Your task to perform on an android device: uninstall "DuckDuckGo Privacy Browser" Image 0: 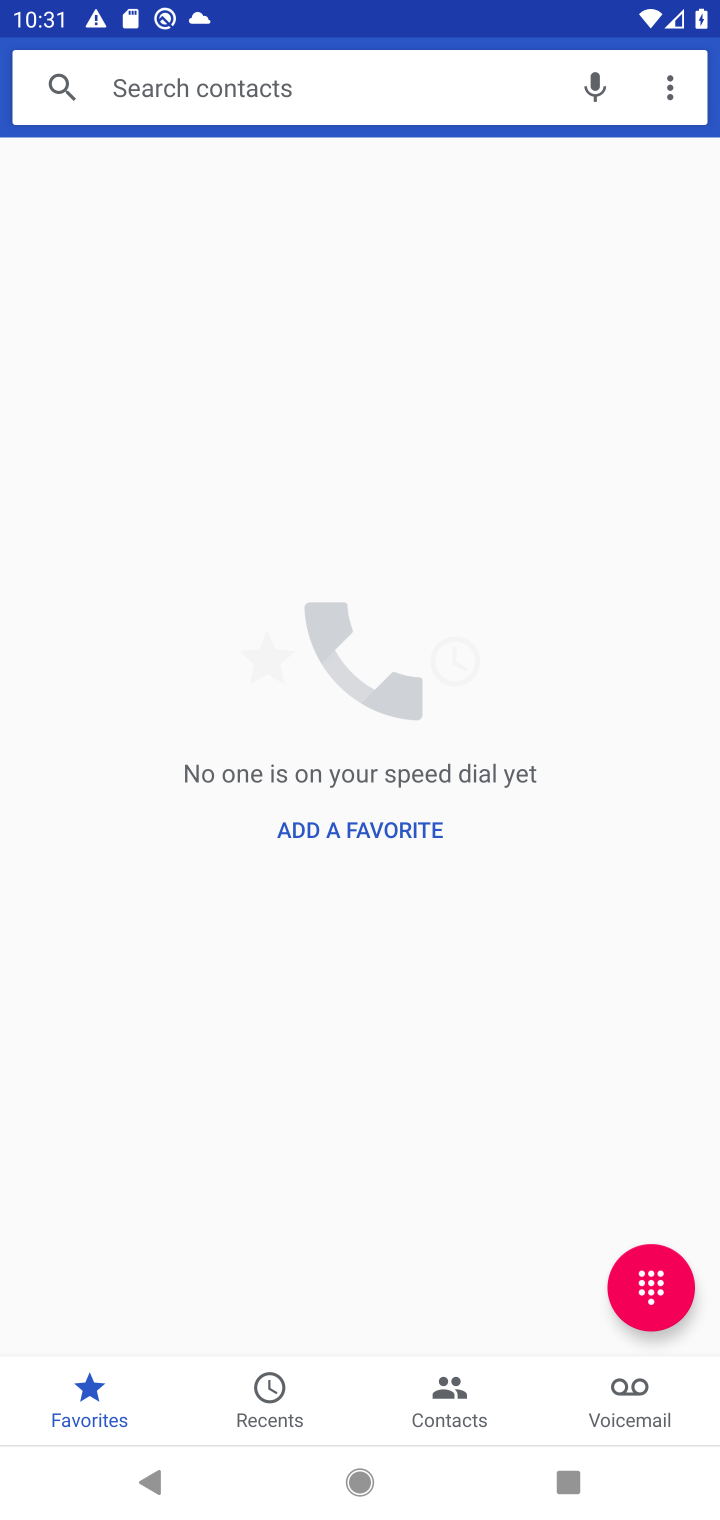
Step 0: press home button
Your task to perform on an android device: uninstall "DuckDuckGo Privacy Browser" Image 1: 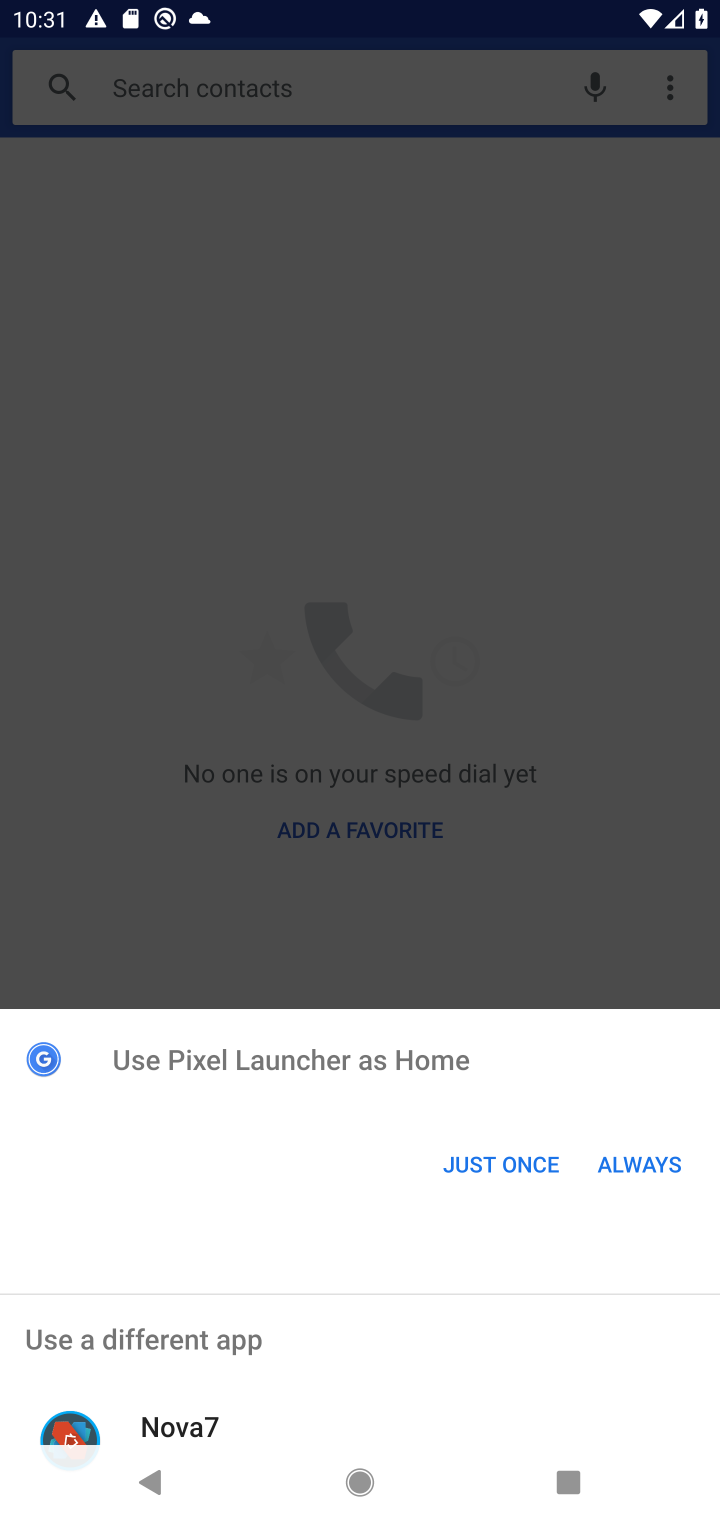
Step 1: click (505, 1151)
Your task to perform on an android device: uninstall "DuckDuckGo Privacy Browser" Image 2: 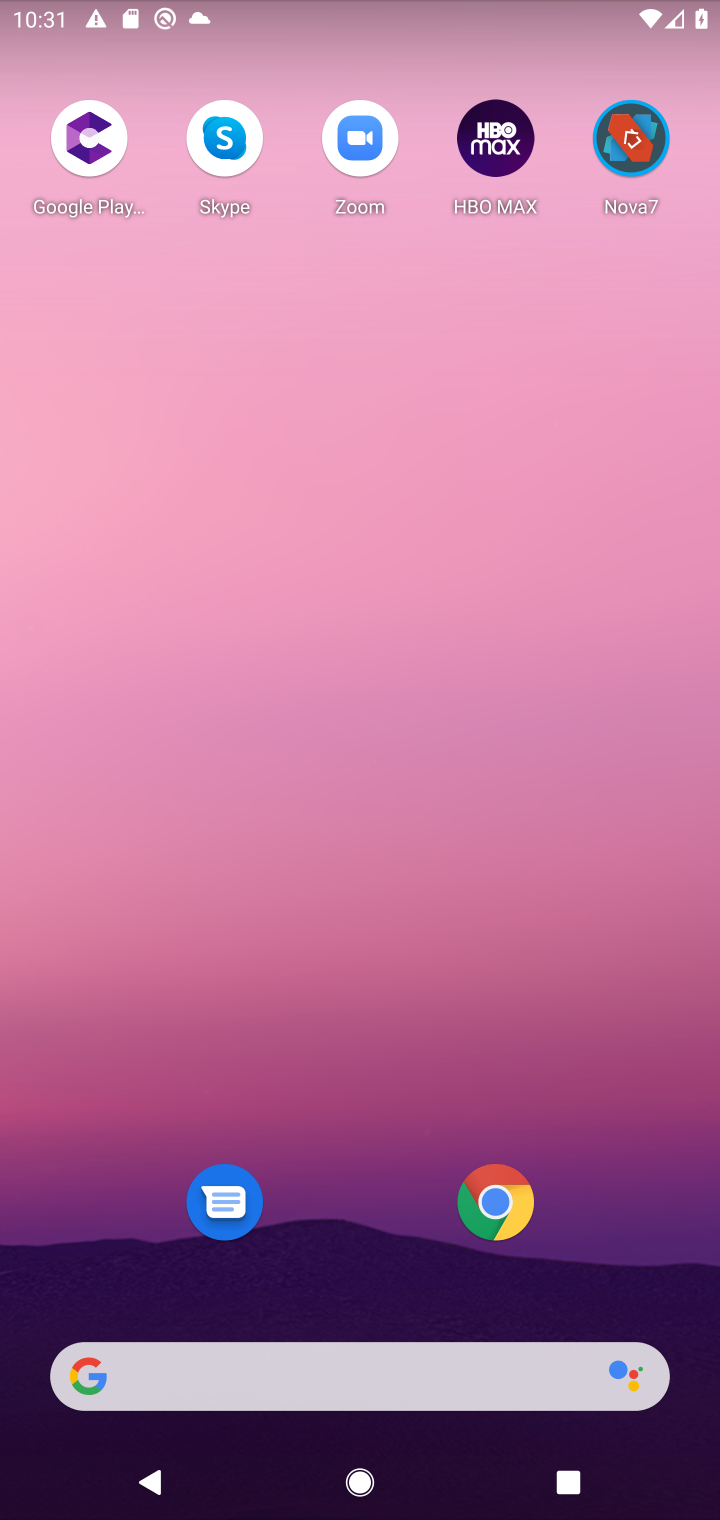
Step 2: click (342, 1358)
Your task to perform on an android device: uninstall "DuckDuckGo Privacy Browser" Image 3: 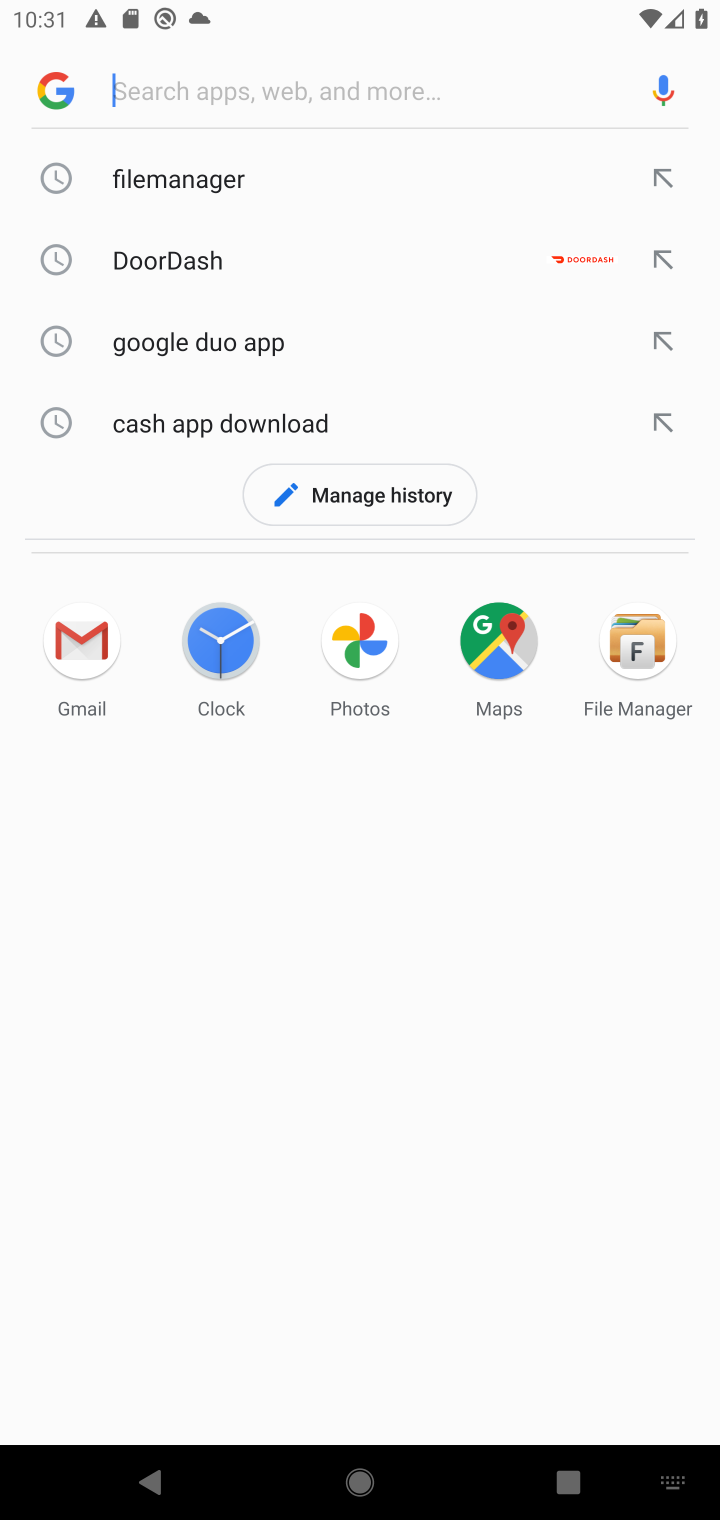
Step 3: type "duck duck go"
Your task to perform on an android device: uninstall "DuckDuckGo Privacy Browser" Image 4: 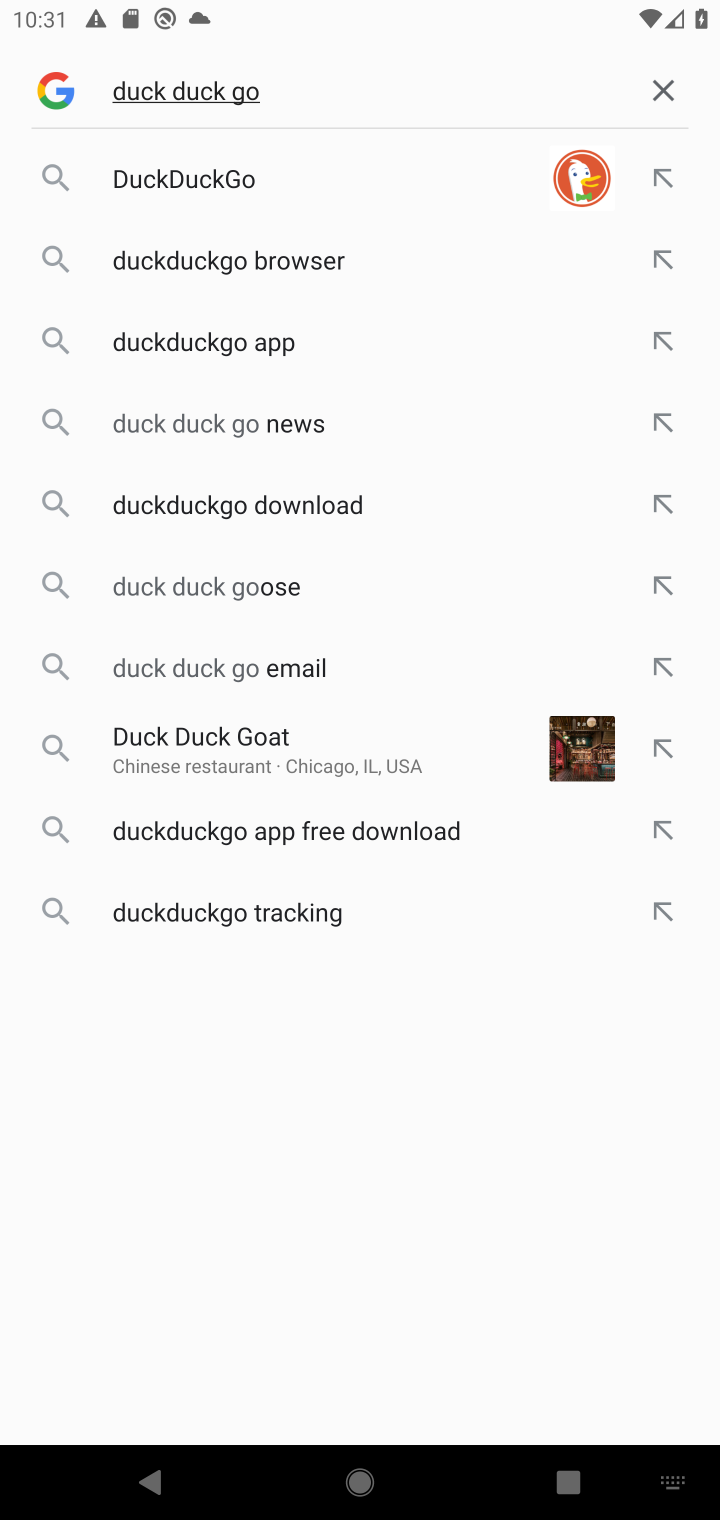
Step 4: click (291, 192)
Your task to perform on an android device: uninstall "DuckDuckGo Privacy Browser" Image 5: 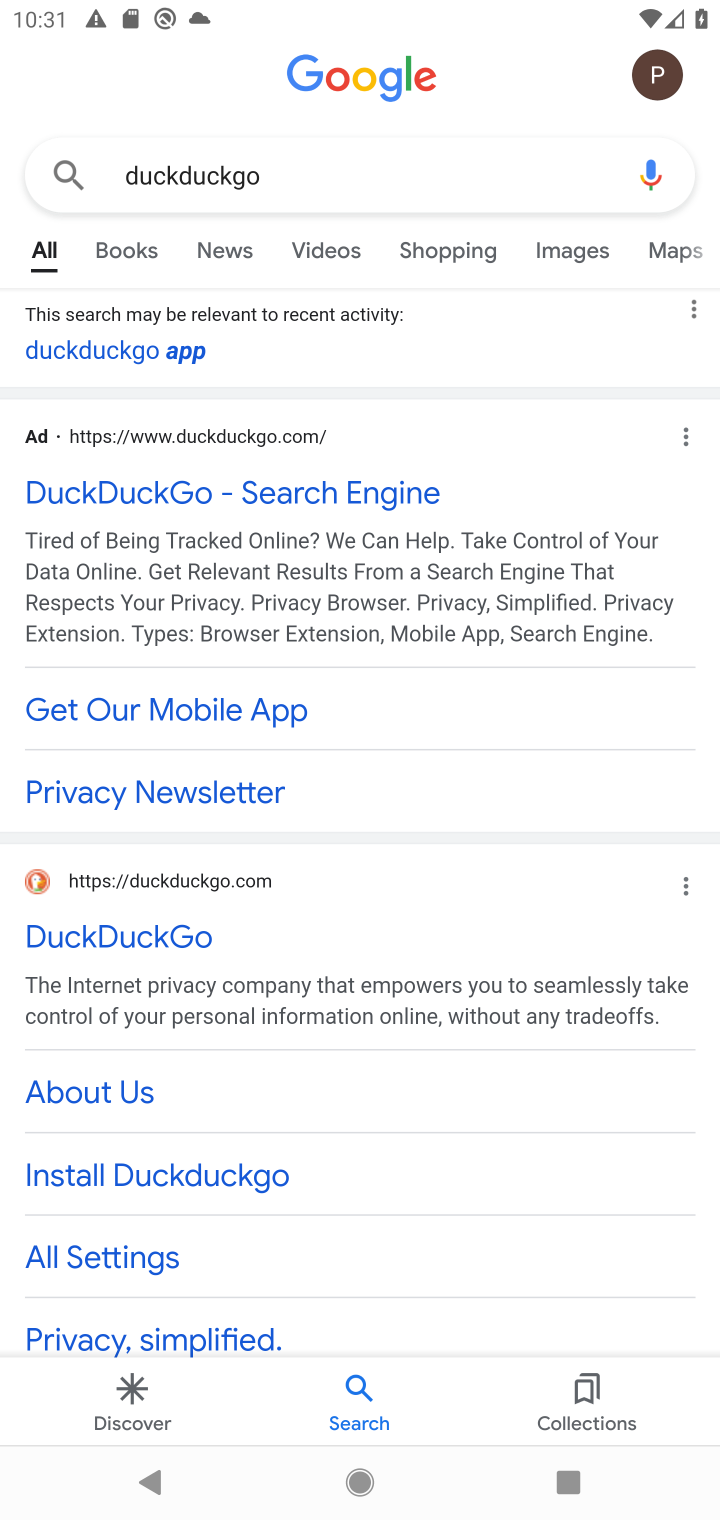
Step 5: drag from (303, 1053) to (335, 290)
Your task to perform on an android device: uninstall "DuckDuckGo Privacy Browser" Image 6: 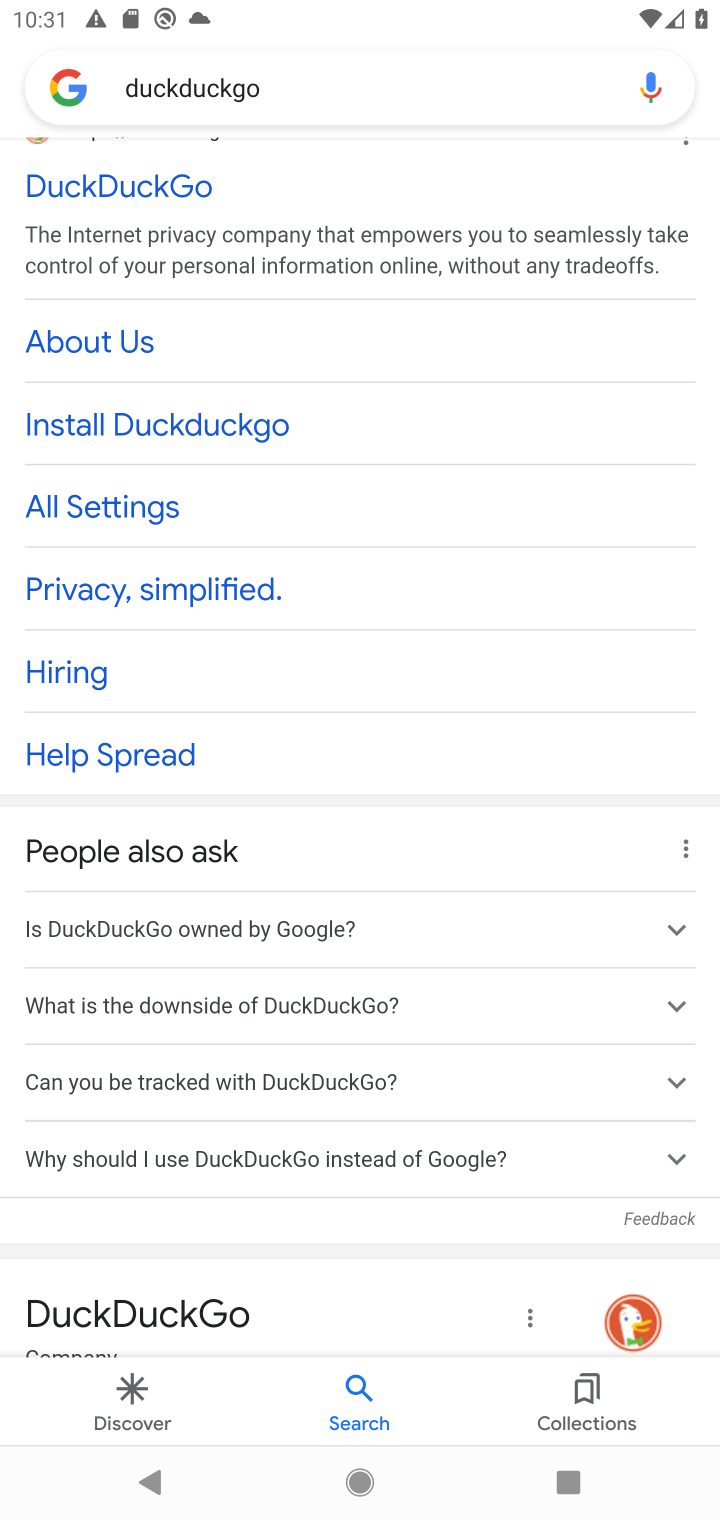
Step 6: drag from (335, 1288) to (368, 573)
Your task to perform on an android device: uninstall "DuckDuckGo Privacy Browser" Image 7: 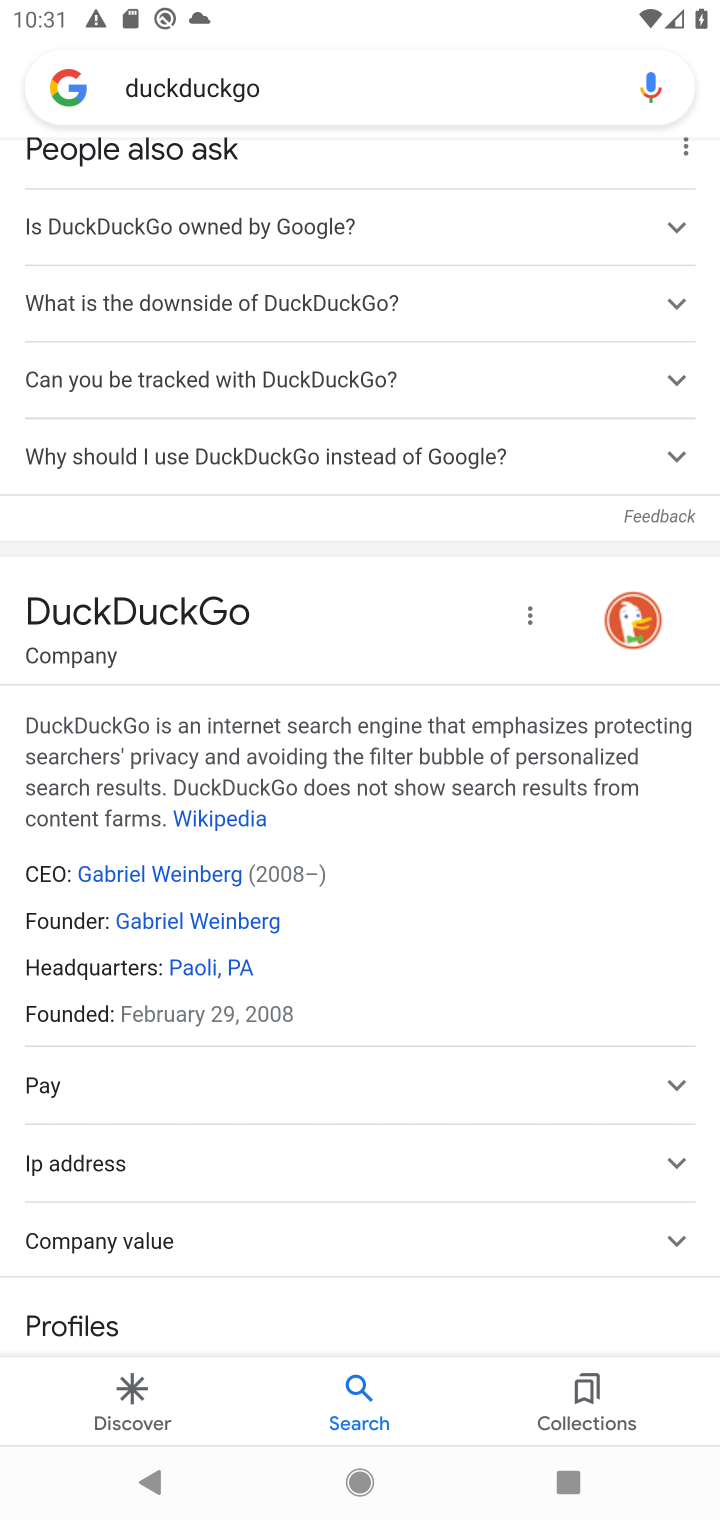
Step 7: drag from (474, 1079) to (447, 515)
Your task to perform on an android device: uninstall "DuckDuckGo Privacy Browser" Image 8: 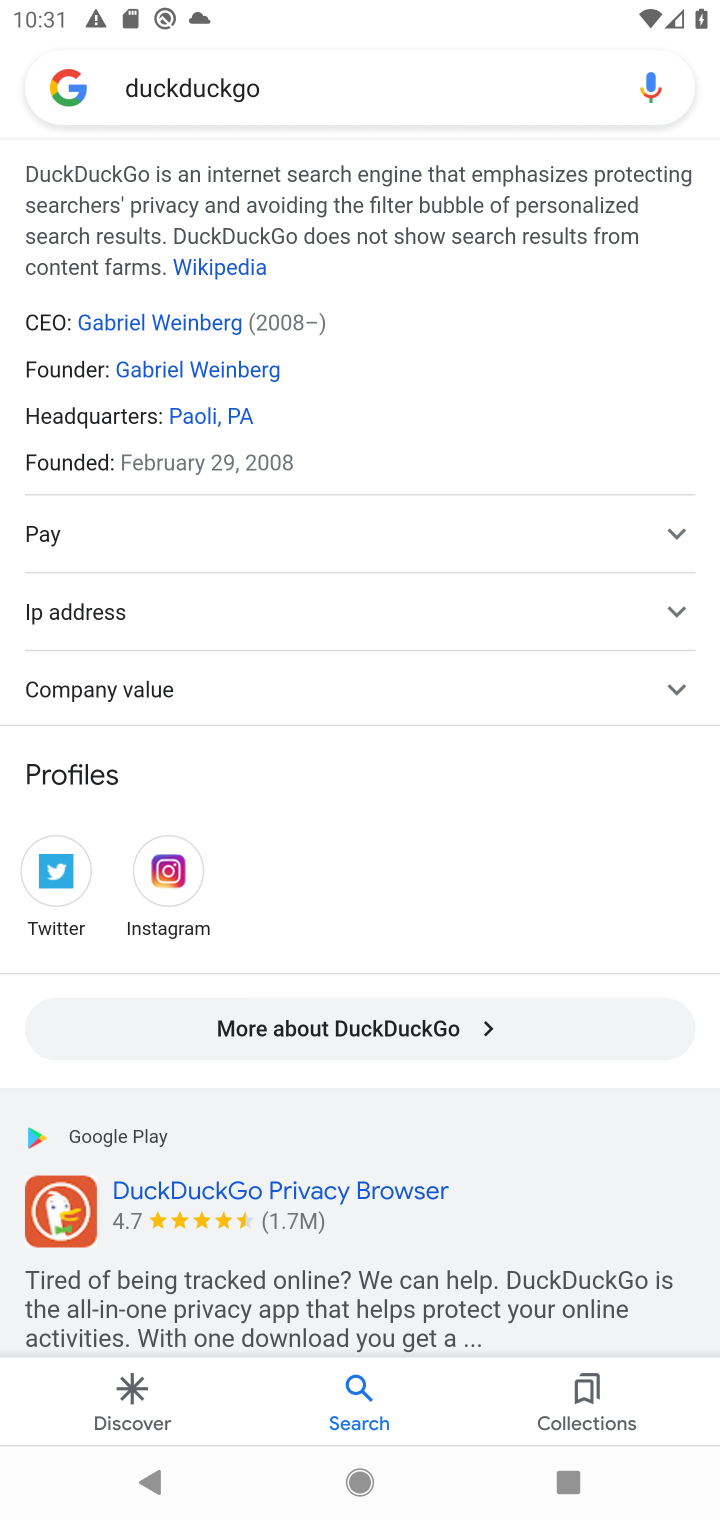
Step 8: drag from (436, 1175) to (426, 891)
Your task to perform on an android device: uninstall "DuckDuckGo Privacy Browser" Image 9: 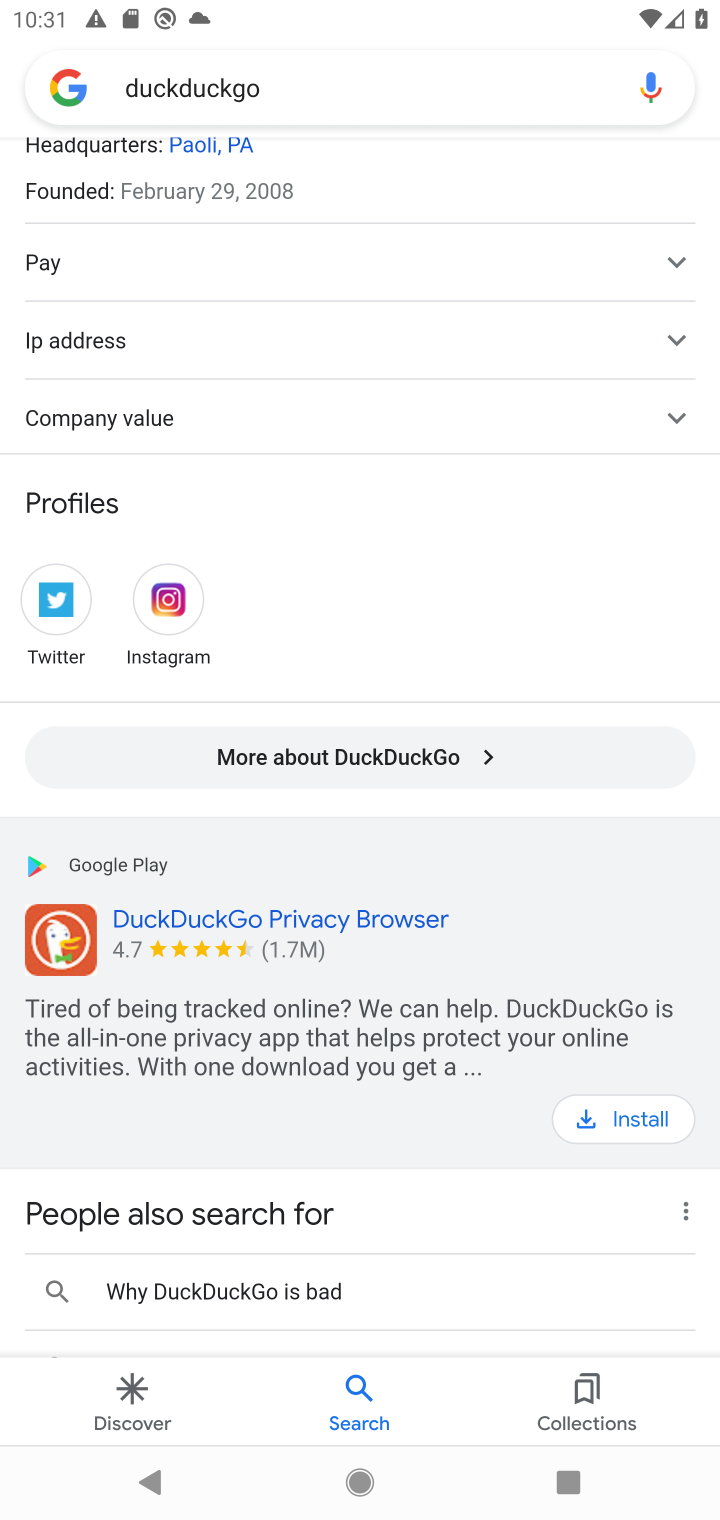
Step 9: click (587, 1115)
Your task to perform on an android device: uninstall "DuckDuckGo Privacy Browser" Image 10: 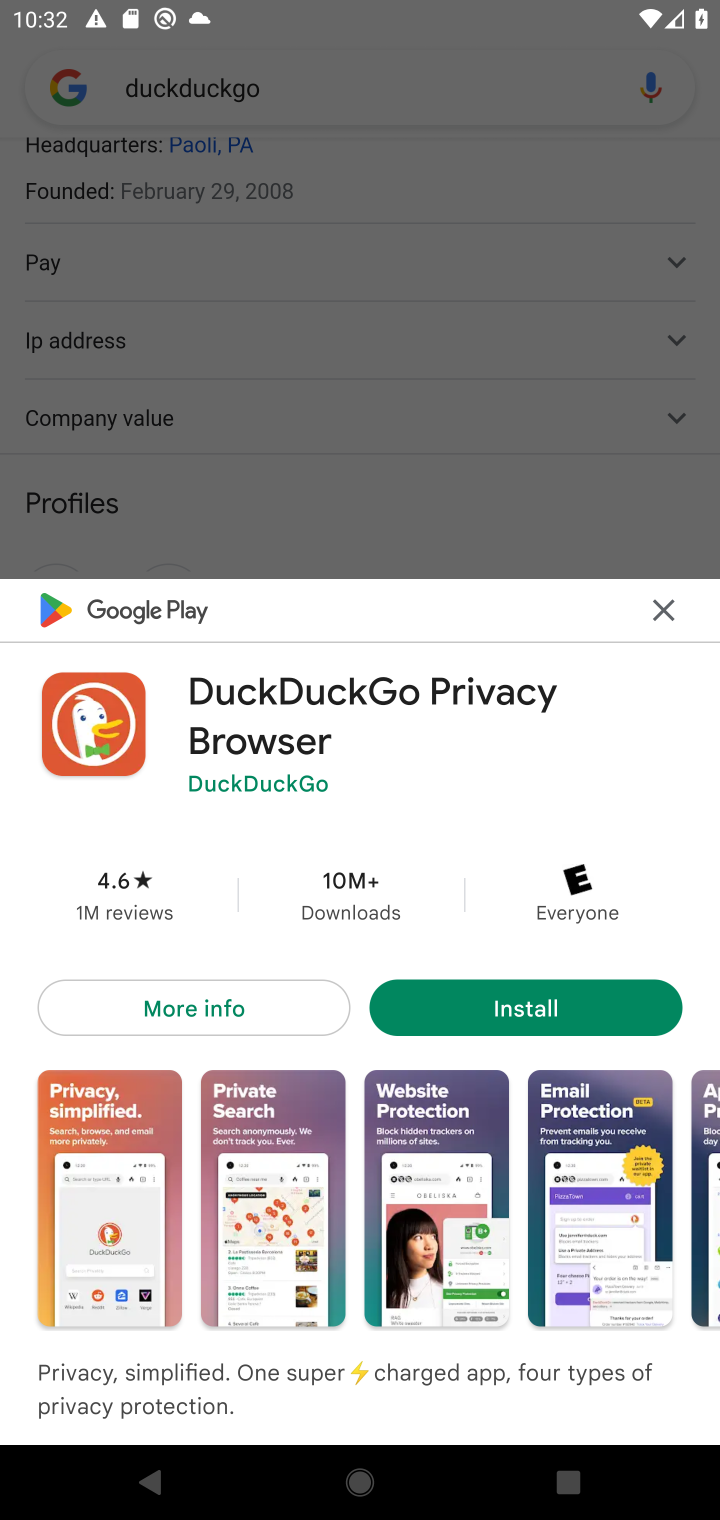
Step 10: click (569, 1014)
Your task to perform on an android device: uninstall "DuckDuckGo Privacy Browser" Image 11: 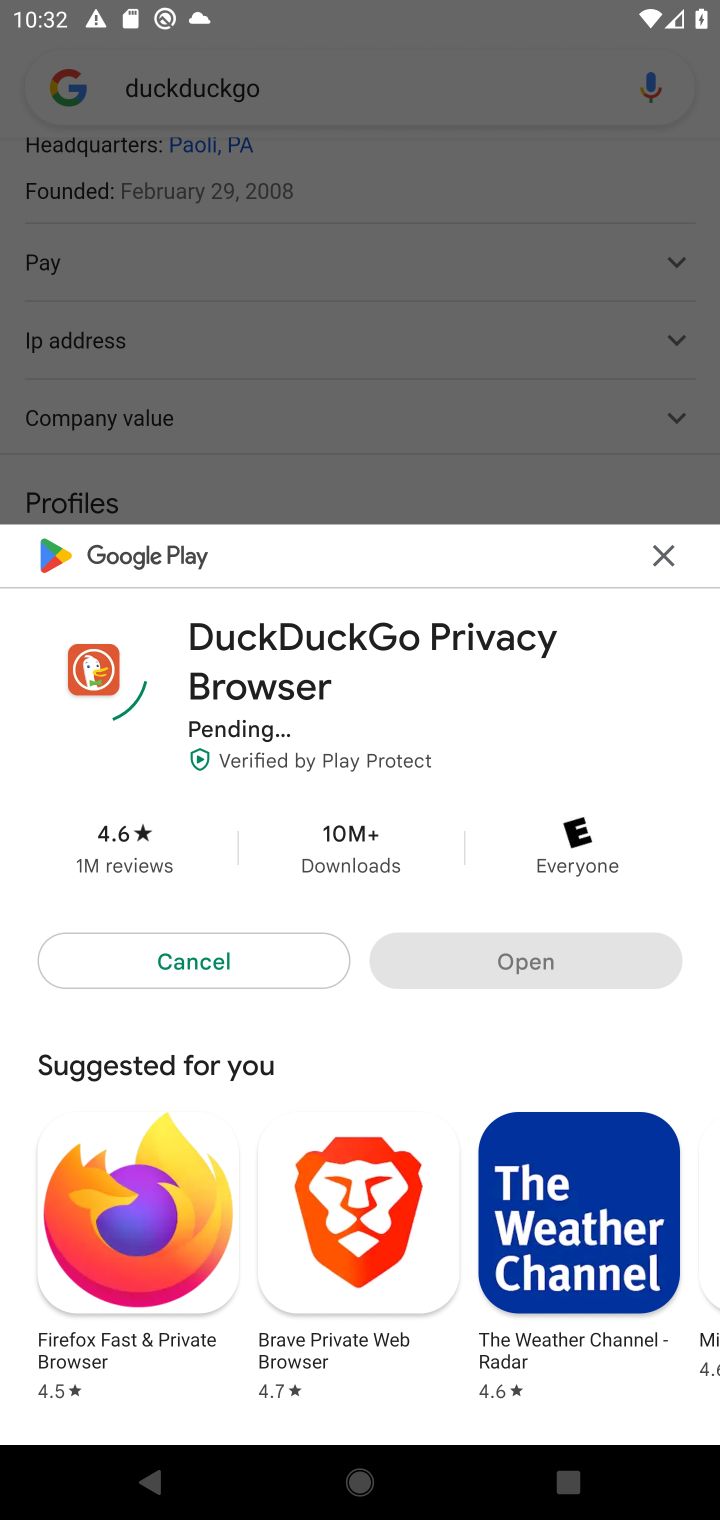
Step 11: task complete